Your task to perform on an android device: check the backup settings in the google photos Image 0: 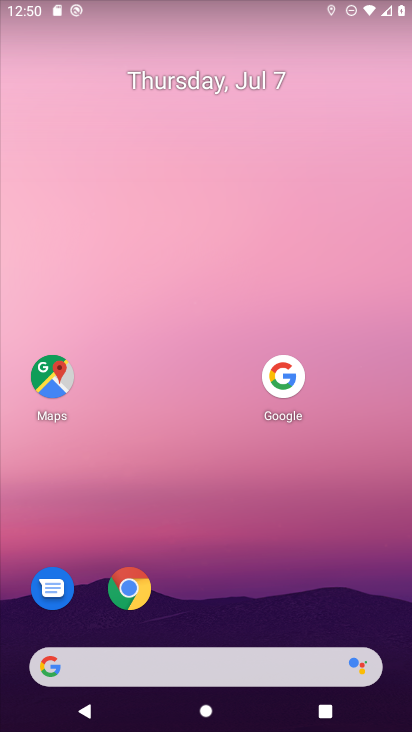
Step 0: drag from (213, 630) to (350, 32)
Your task to perform on an android device: check the backup settings in the google photos Image 1: 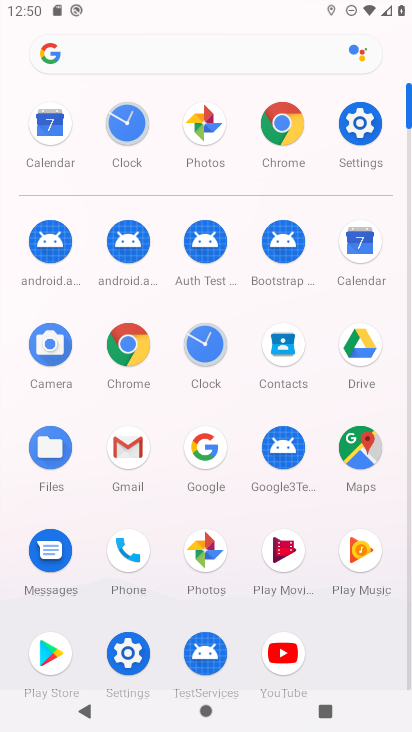
Step 1: click (213, 542)
Your task to perform on an android device: check the backup settings in the google photos Image 2: 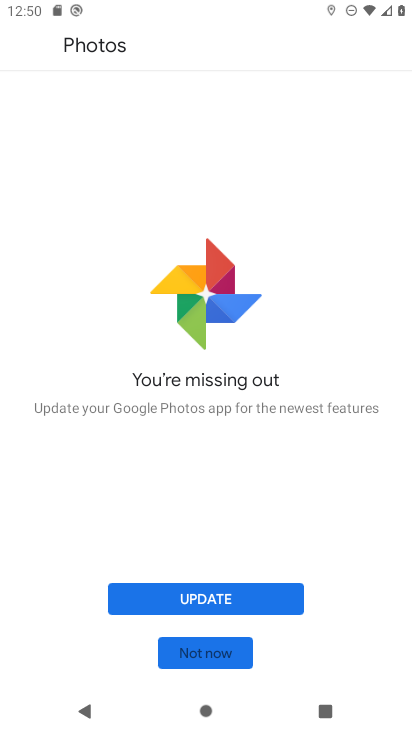
Step 2: click (204, 655)
Your task to perform on an android device: check the backup settings in the google photos Image 3: 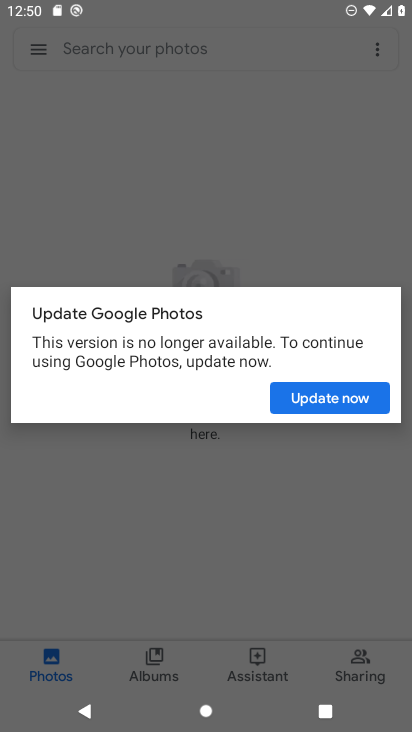
Step 3: click (337, 400)
Your task to perform on an android device: check the backup settings in the google photos Image 4: 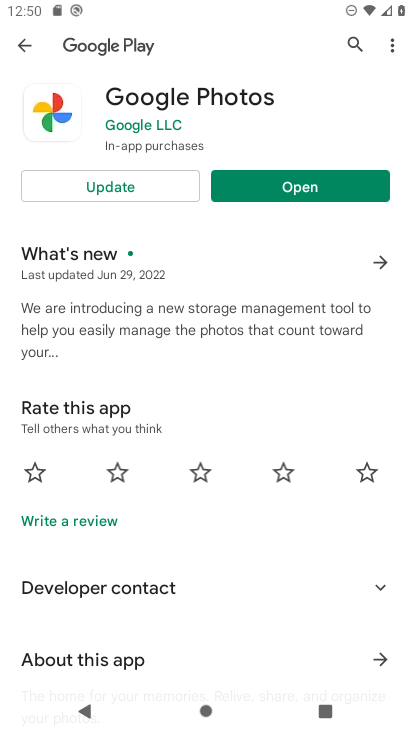
Step 4: click (324, 190)
Your task to perform on an android device: check the backup settings in the google photos Image 5: 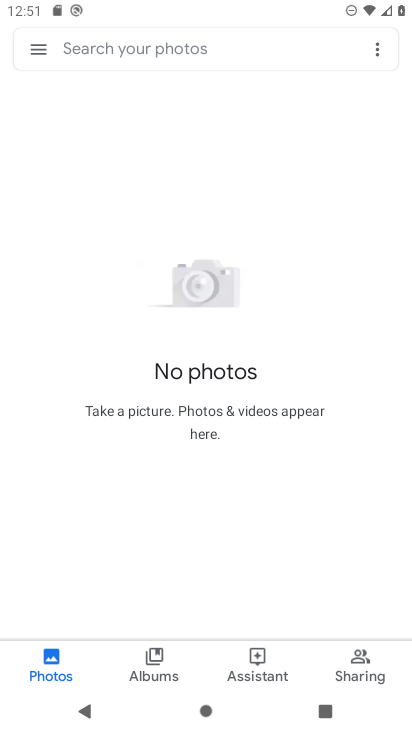
Step 5: click (42, 43)
Your task to perform on an android device: check the backup settings in the google photos Image 6: 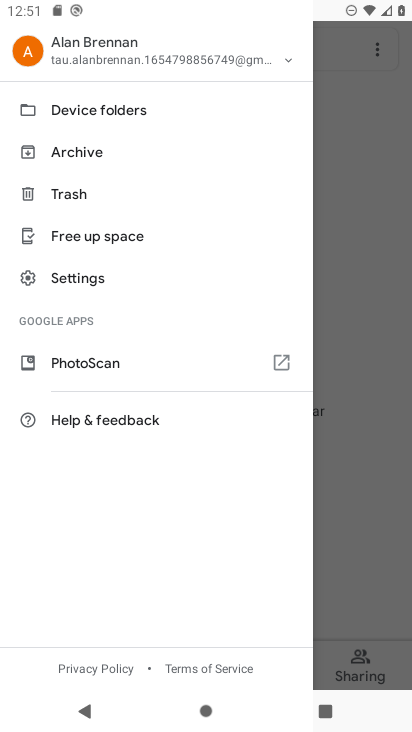
Step 6: click (38, 49)
Your task to perform on an android device: check the backup settings in the google photos Image 7: 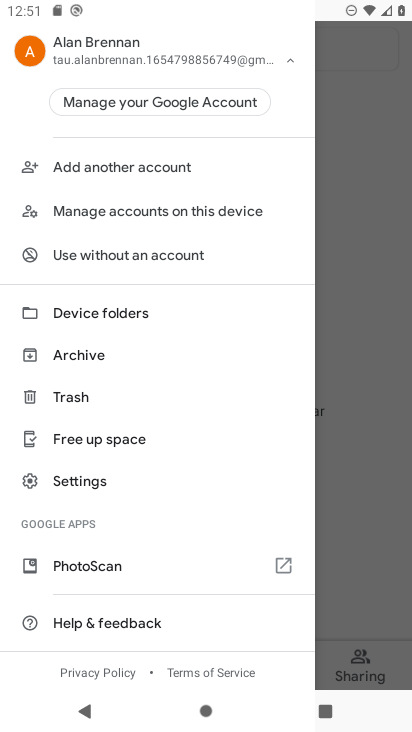
Step 7: click (94, 486)
Your task to perform on an android device: check the backup settings in the google photos Image 8: 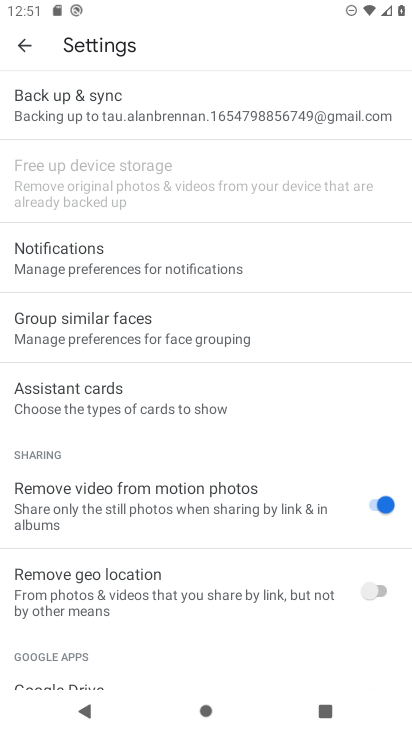
Step 8: click (173, 108)
Your task to perform on an android device: check the backup settings in the google photos Image 9: 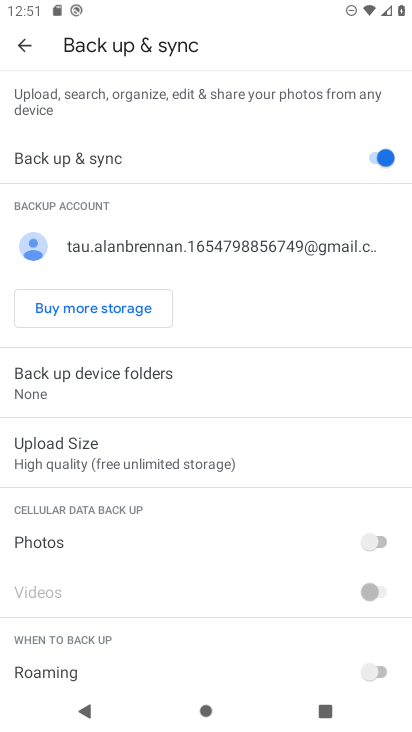
Step 9: task complete